Your task to perform on an android device: toggle wifi Image 0: 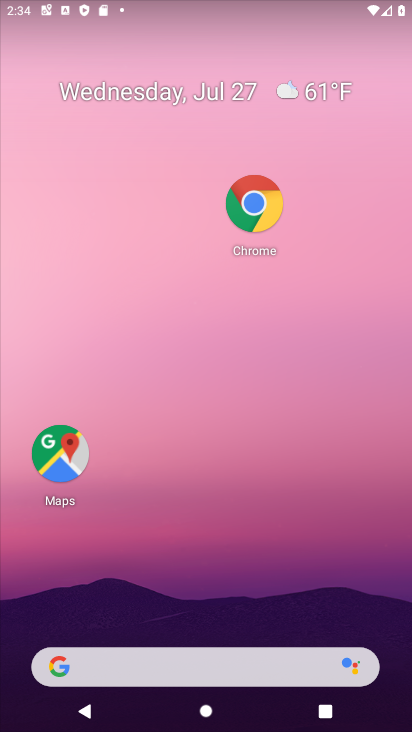
Step 0: drag from (200, 647) to (200, 109)
Your task to perform on an android device: toggle wifi Image 1: 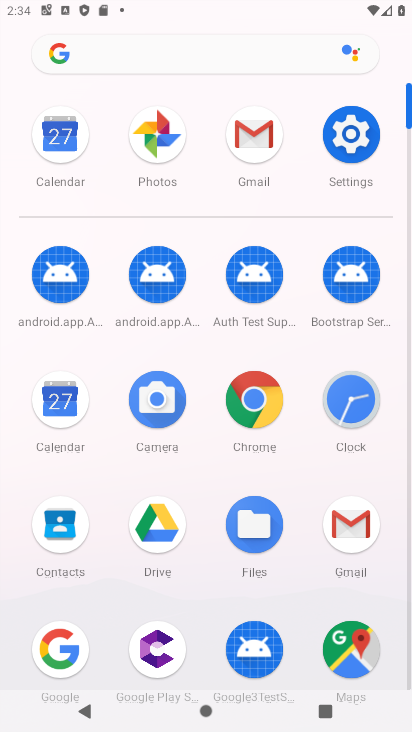
Step 1: click (338, 136)
Your task to perform on an android device: toggle wifi Image 2: 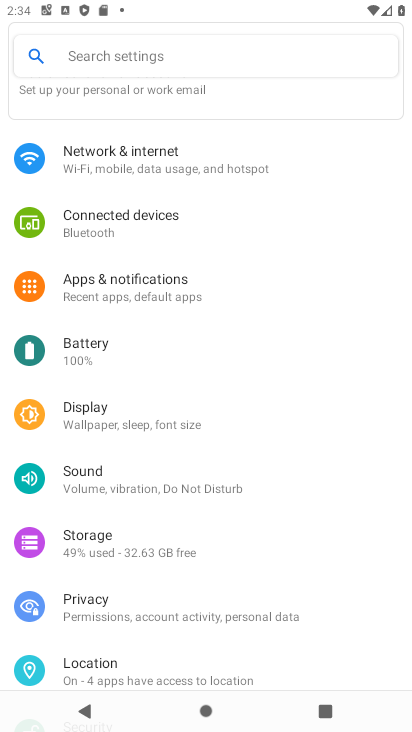
Step 2: click (135, 156)
Your task to perform on an android device: toggle wifi Image 3: 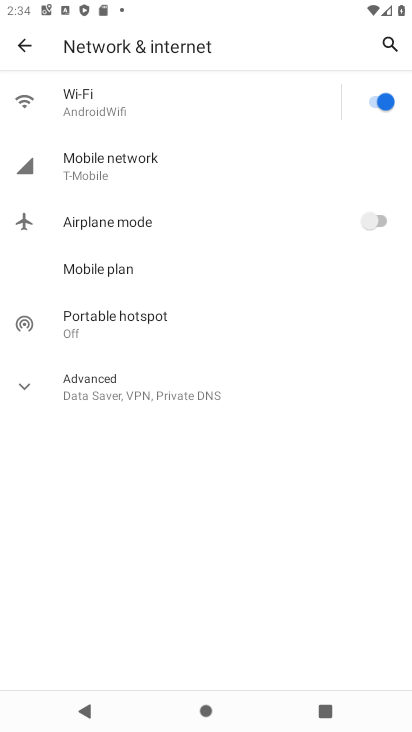
Step 3: click (394, 92)
Your task to perform on an android device: toggle wifi Image 4: 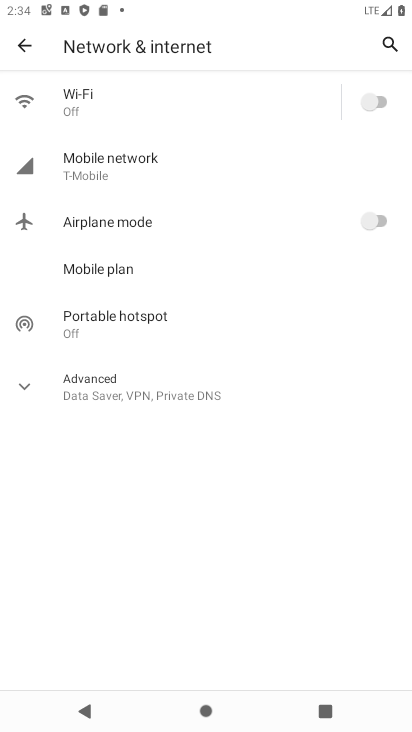
Step 4: task complete